Your task to perform on an android device: add a contact Image 0: 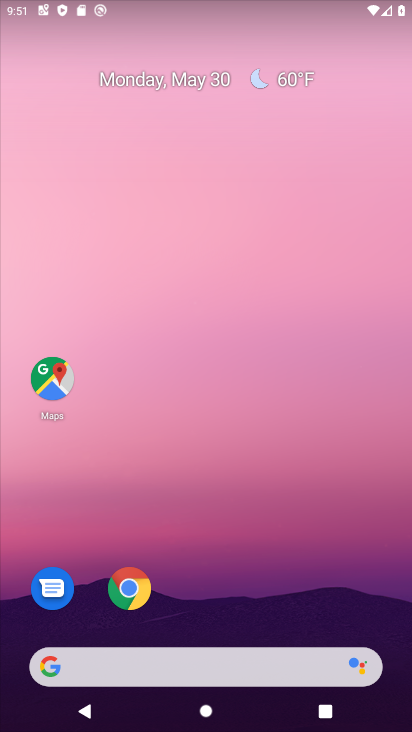
Step 0: drag from (230, 598) to (308, 3)
Your task to perform on an android device: add a contact Image 1: 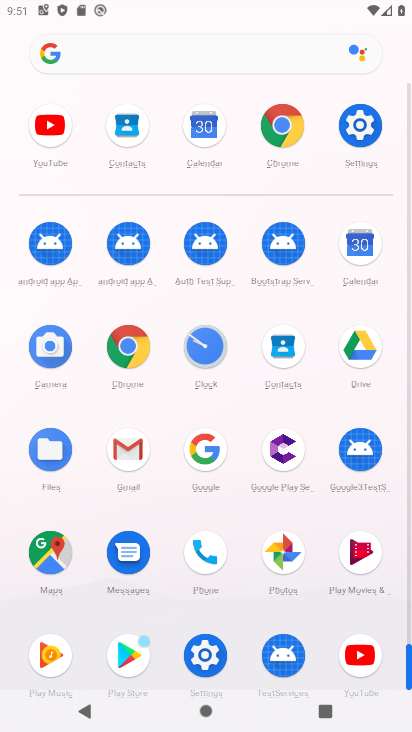
Step 1: click (286, 366)
Your task to perform on an android device: add a contact Image 2: 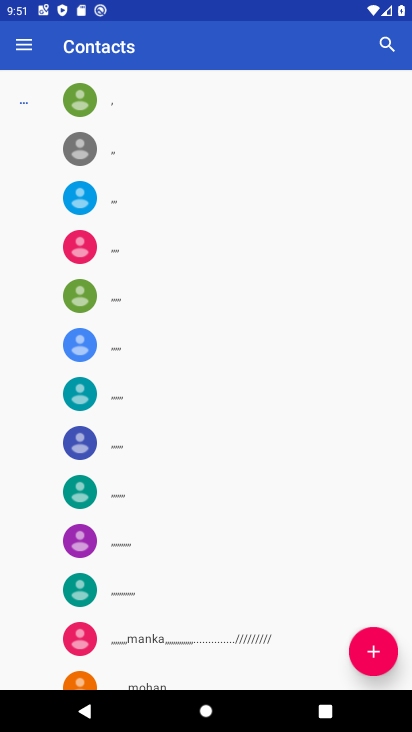
Step 2: click (366, 647)
Your task to perform on an android device: add a contact Image 3: 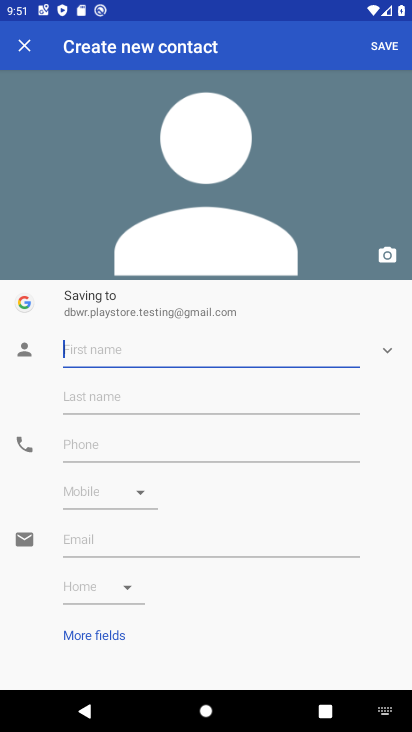
Step 3: type "crypto"
Your task to perform on an android device: add a contact Image 4: 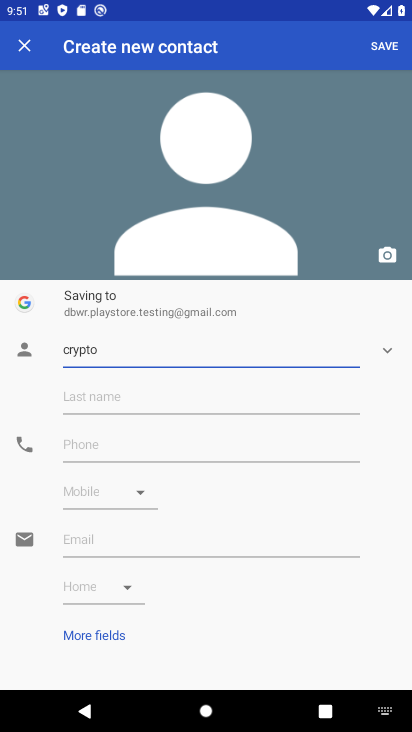
Step 4: click (385, 45)
Your task to perform on an android device: add a contact Image 5: 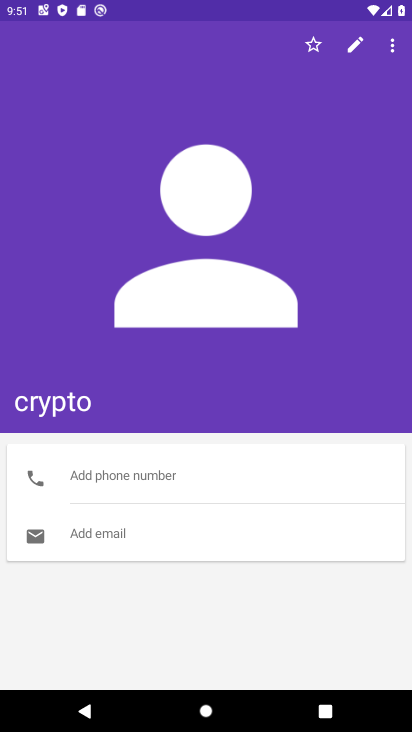
Step 5: task complete